Your task to perform on an android device: change your default location settings in chrome Image 0: 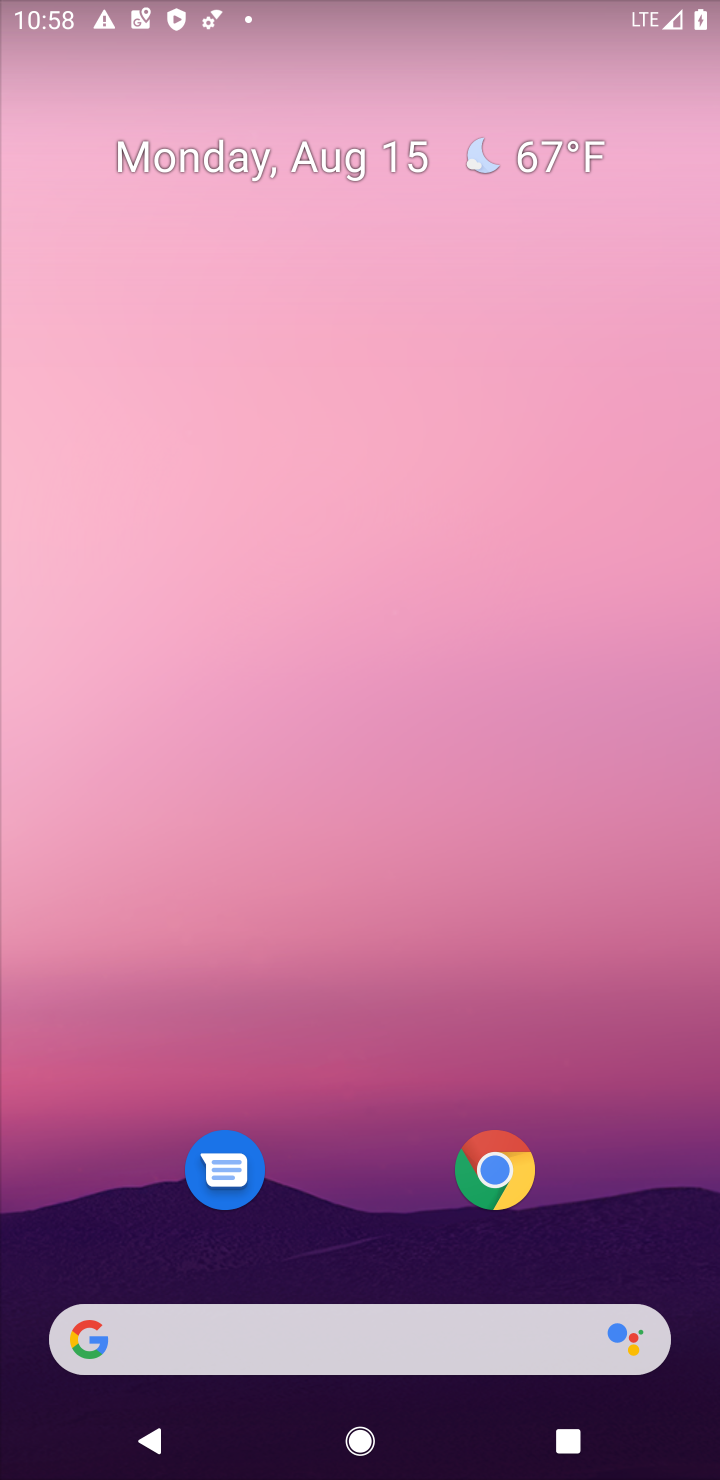
Step 0: press home button
Your task to perform on an android device: change your default location settings in chrome Image 1: 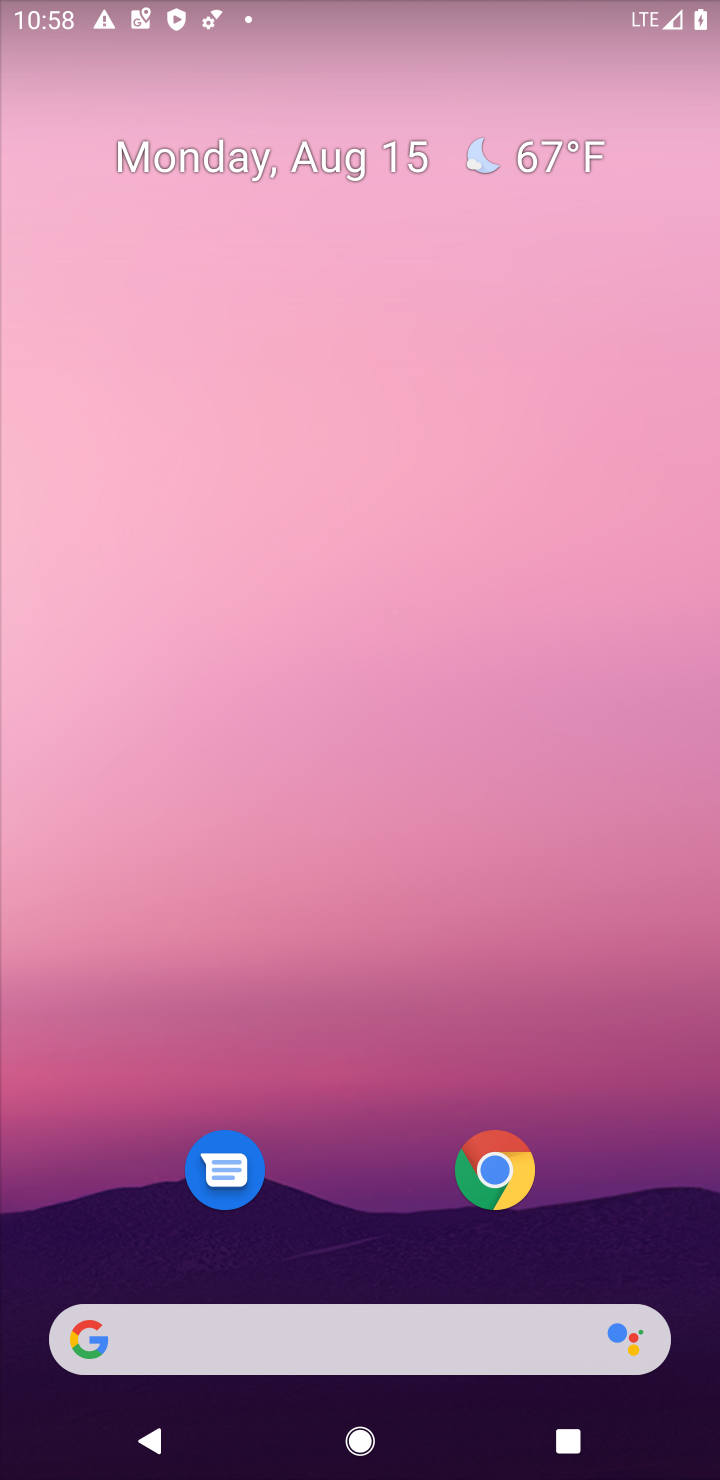
Step 1: drag from (387, 1278) to (439, 78)
Your task to perform on an android device: change your default location settings in chrome Image 2: 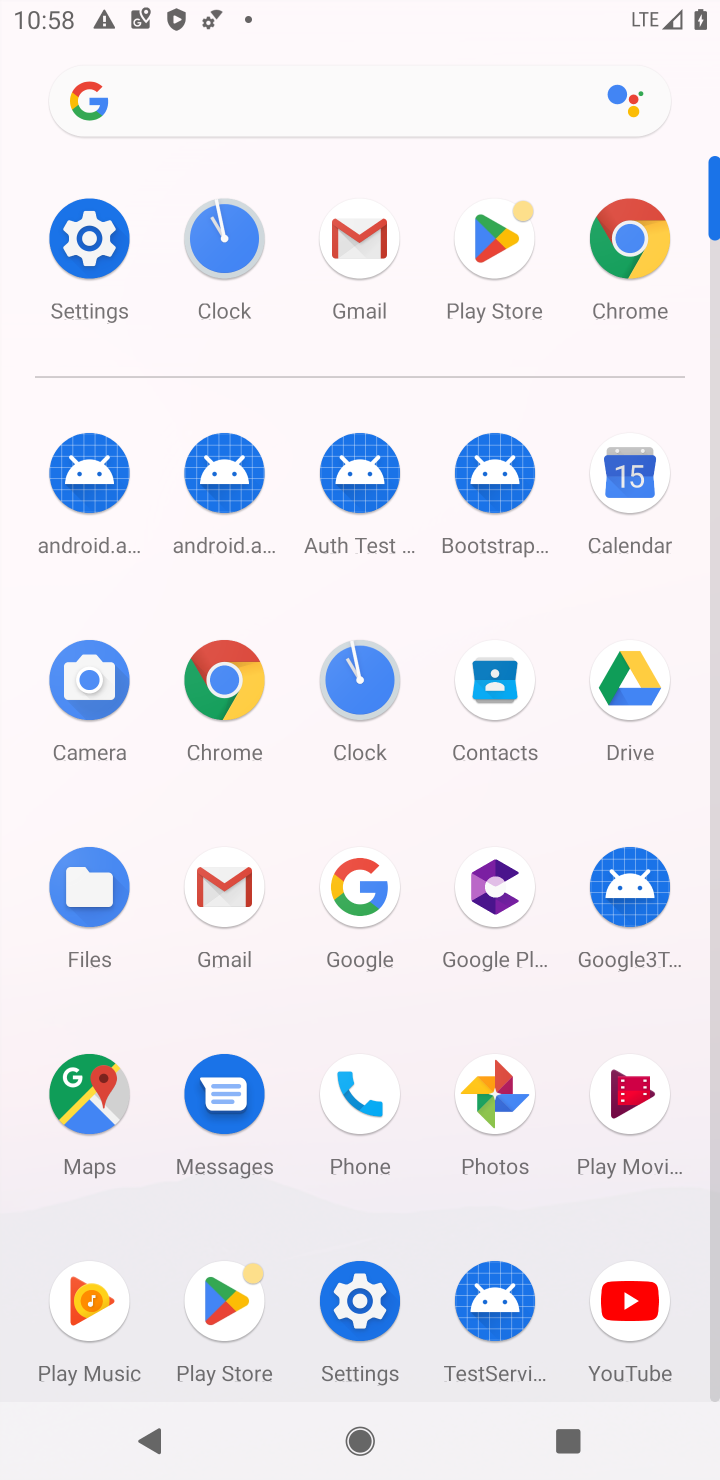
Step 2: click (220, 667)
Your task to perform on an android device: change your default location settings in chrome Image 3: 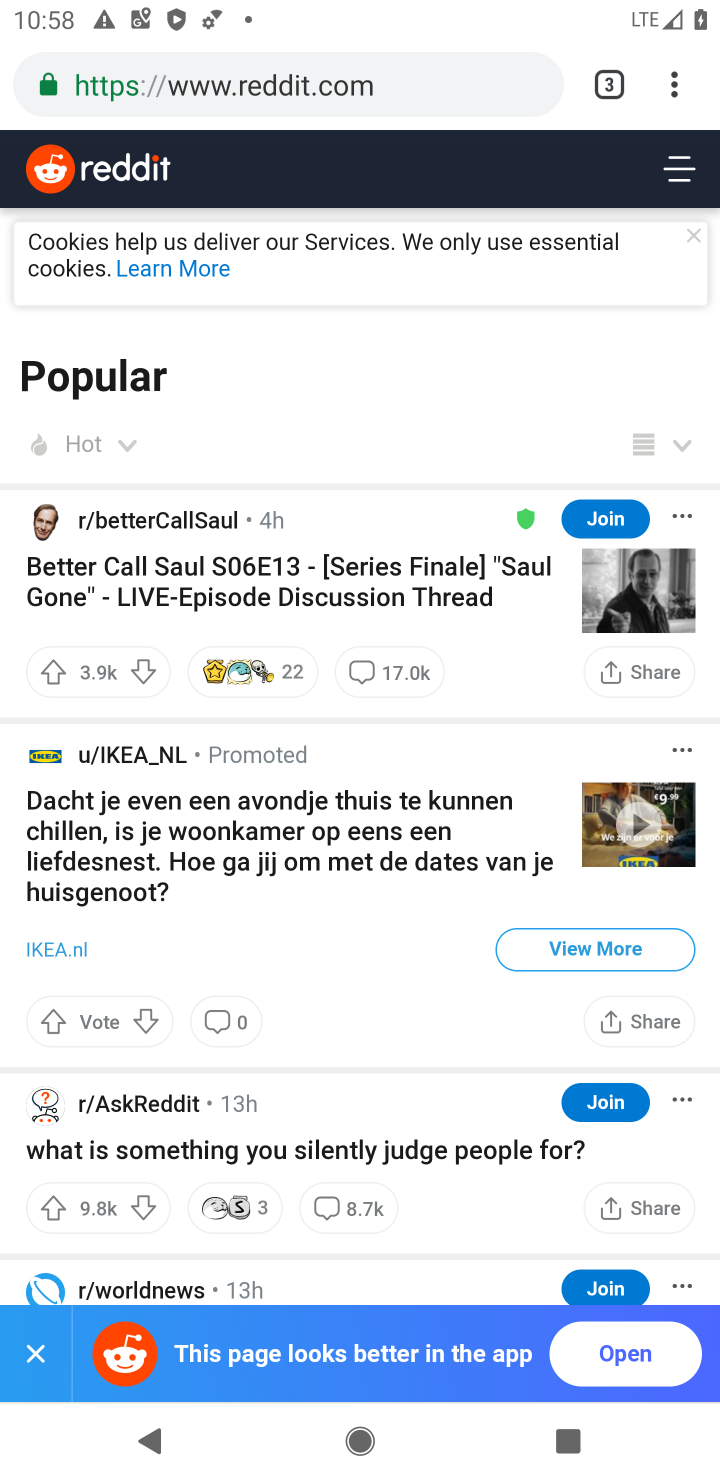
Step 3: click (671, 76)
Your task to perform on an android device: change your default location settings in chrome Image 4: 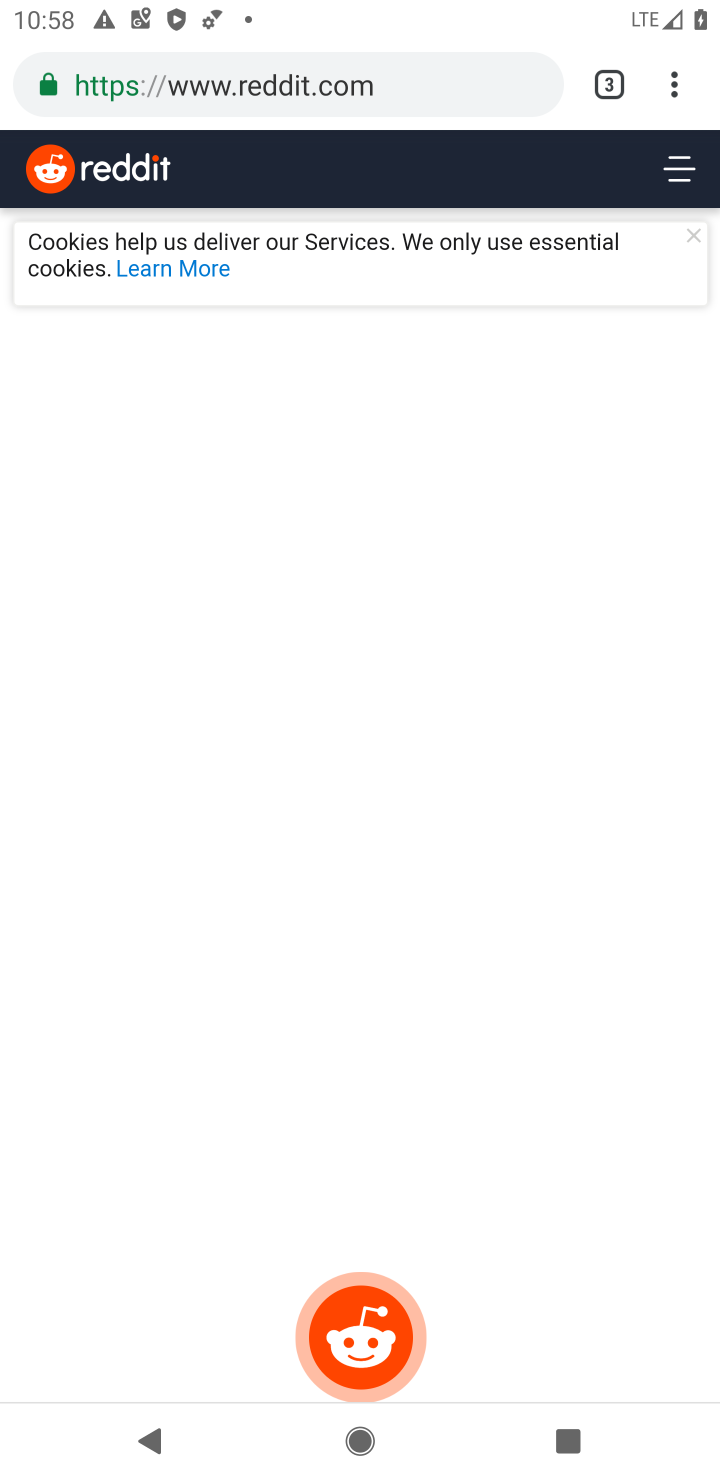
Step 4: click (673, 86)
Your task to perform on an android device: change your default location settings in chrome Image 5: 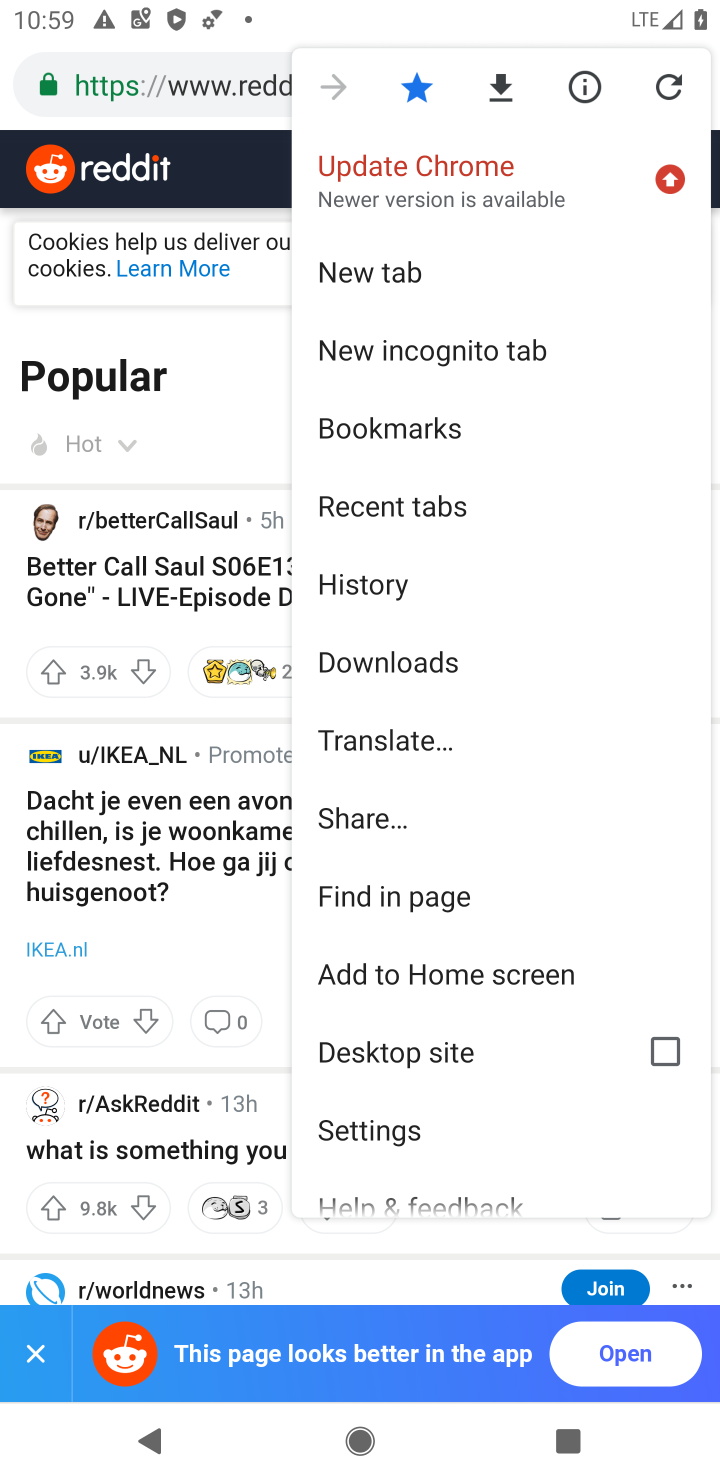
Step 5: click (433, 1129)
Your task to perform on an android device: change your default location settings in chrome Image 6: 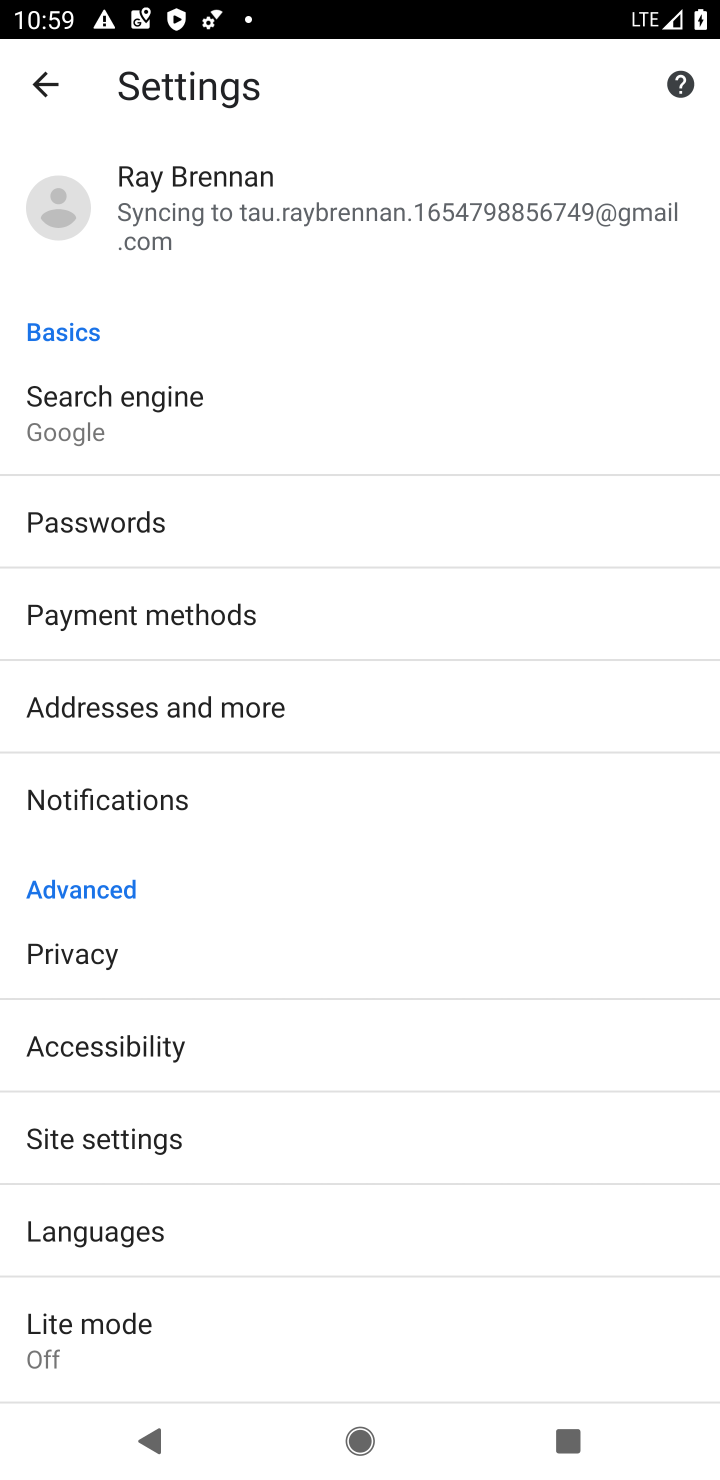
Step 6: click (221, 1131)
Your task to perform on an android device: change your default location settings in chrome Image 7: 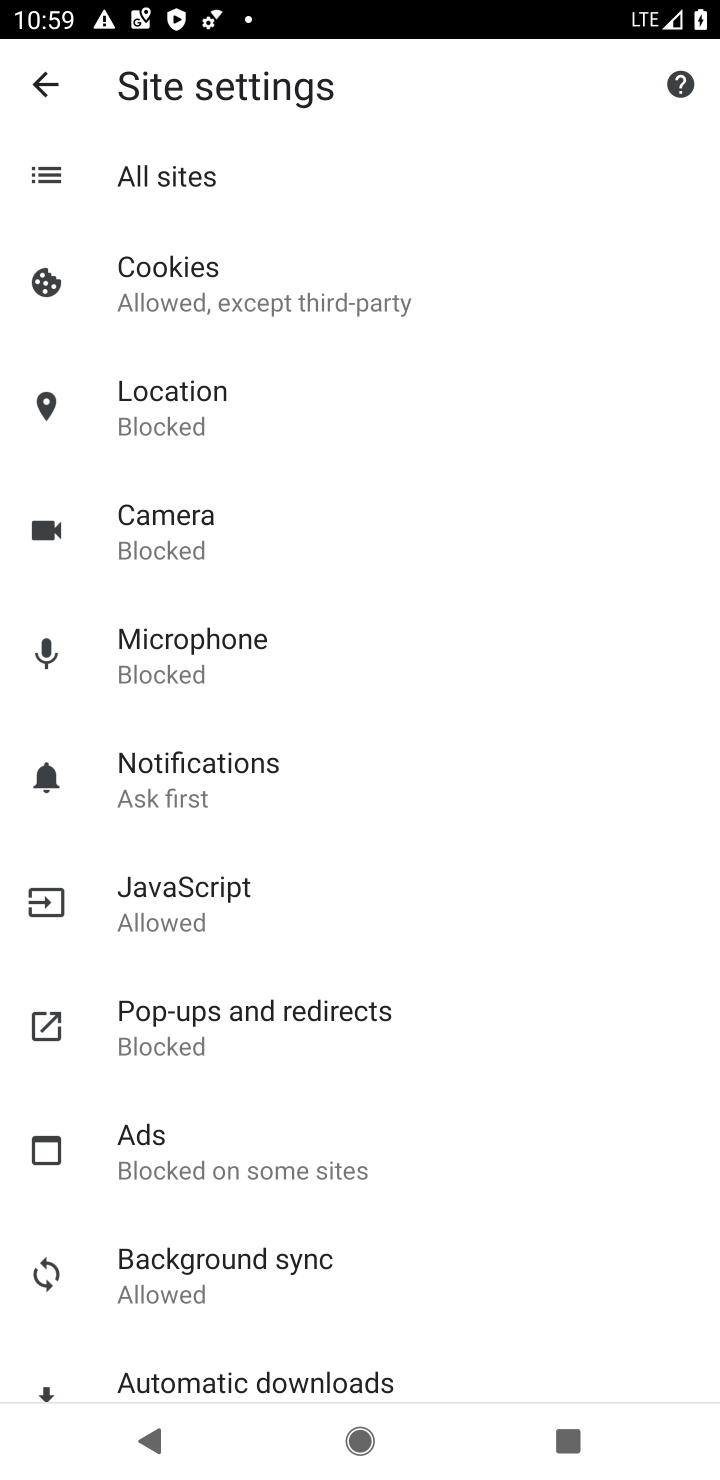
Step 7: click (236, 407)
Your task to perform on an android device: change your default location settings in chrome Image 8: 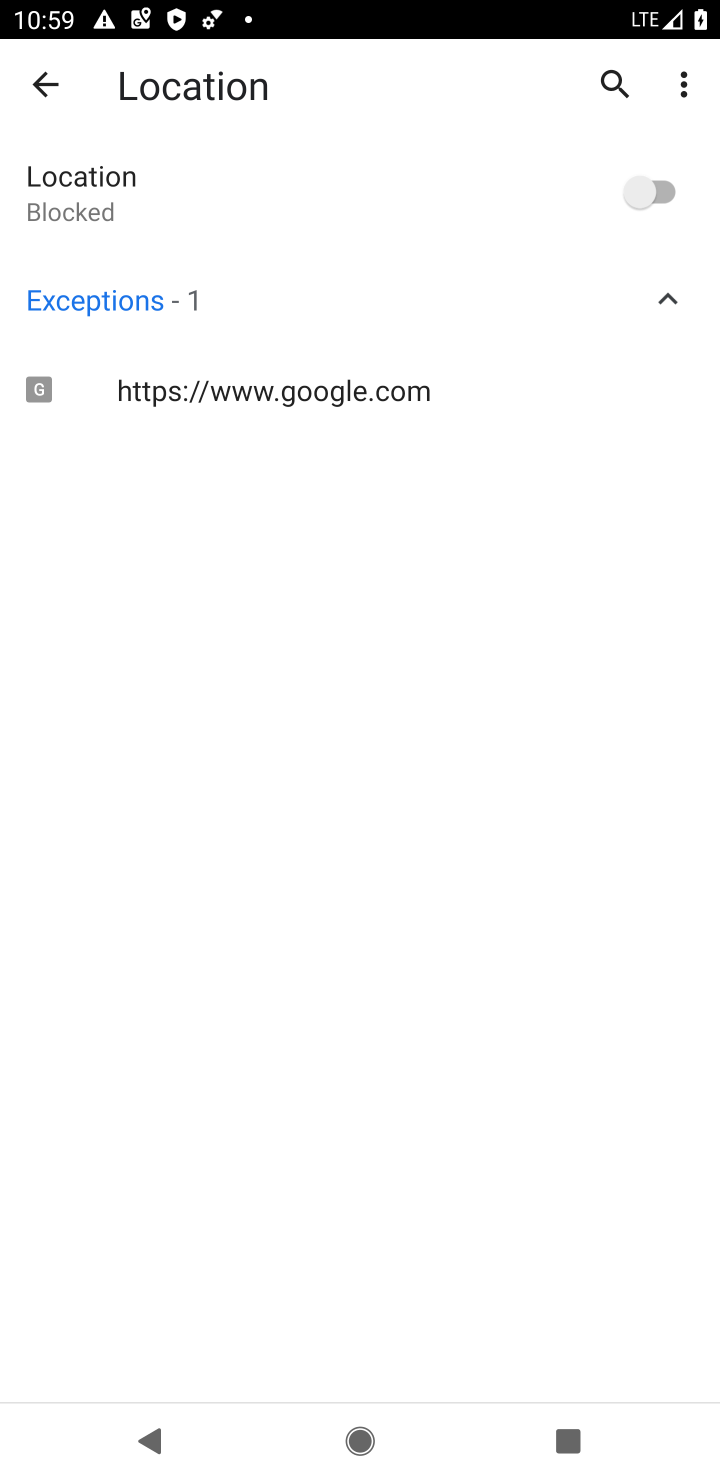
Step 8: click (662, 180)
Your task to perform on an android device: change your default location settings in chrome Image 9: 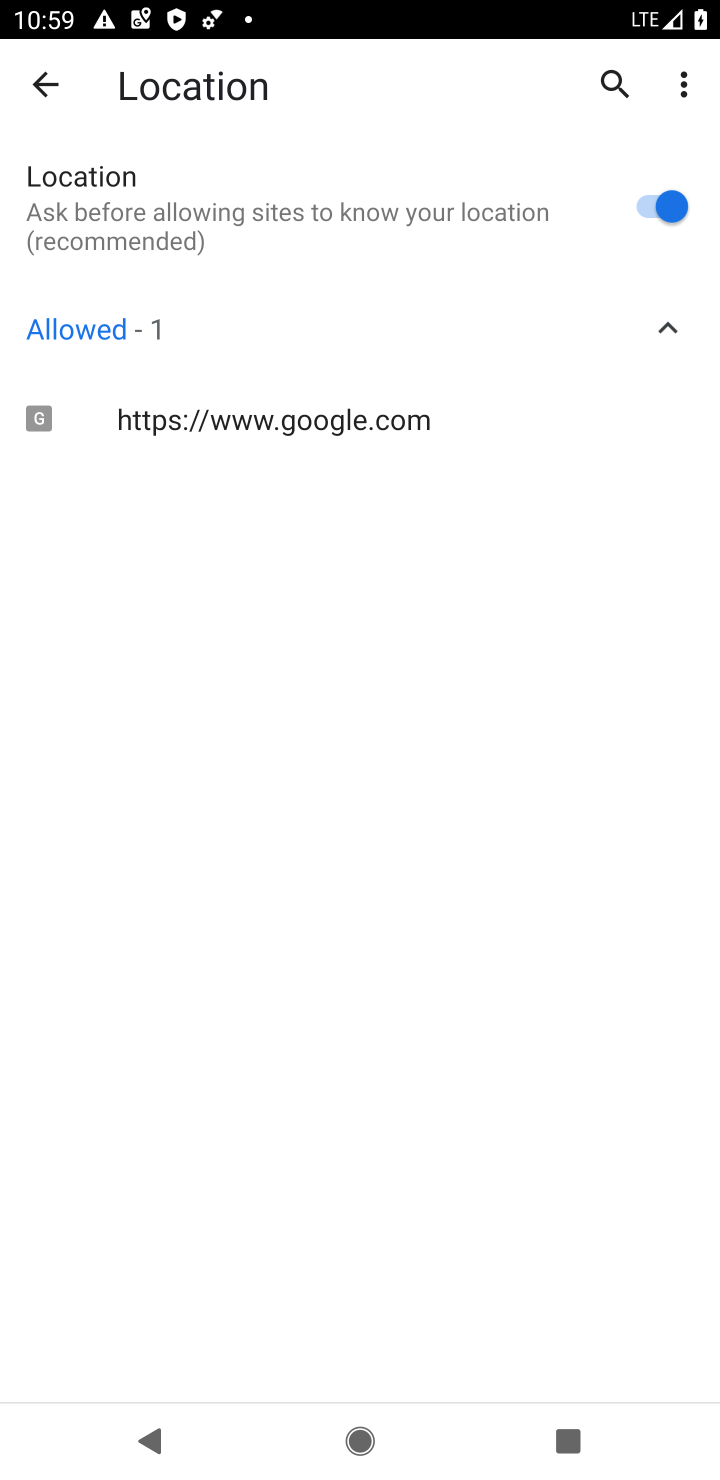
Step 9: task complete